Your task to perform on an android device: toggle data saver in the chrome app Image 0: 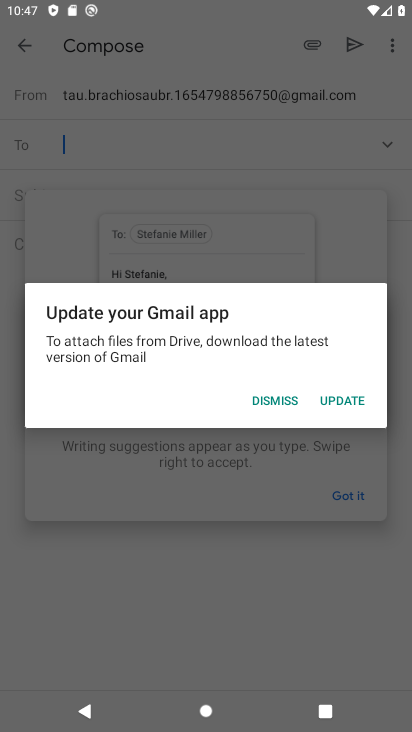
Step 0: press home button
Your task to perform on an android device: toggle data saver in the chrome app Image 1: 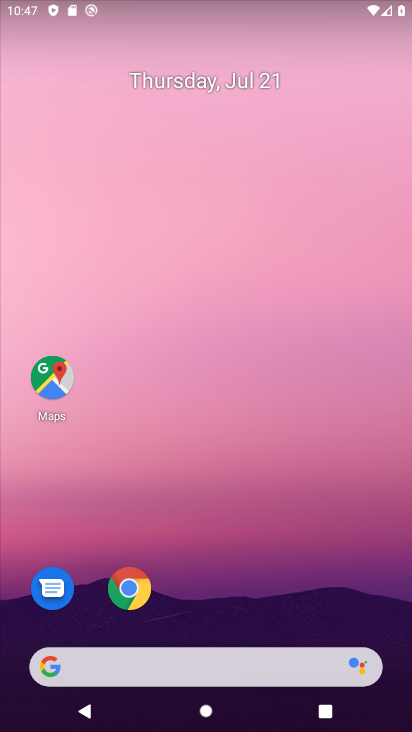
Step 1: drag from (352, 392) to (328, 9)
Your task to perform on an android device: toggle data saver in the chrome app Image 2: 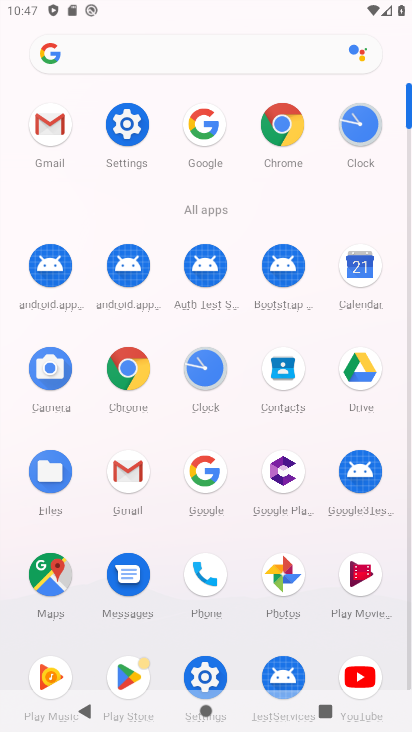
Step 2: click (279, 131)
Your task to perform on an android device: toggle data saver in the chrome app Image 3: 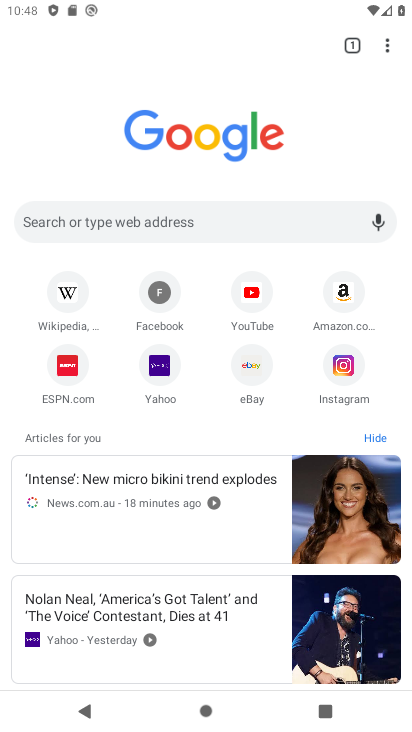
Step 3: drag from (395, 52) to (263, 373)
Your task to perform on an android device: toggle data saver in the chrome app Image 4: 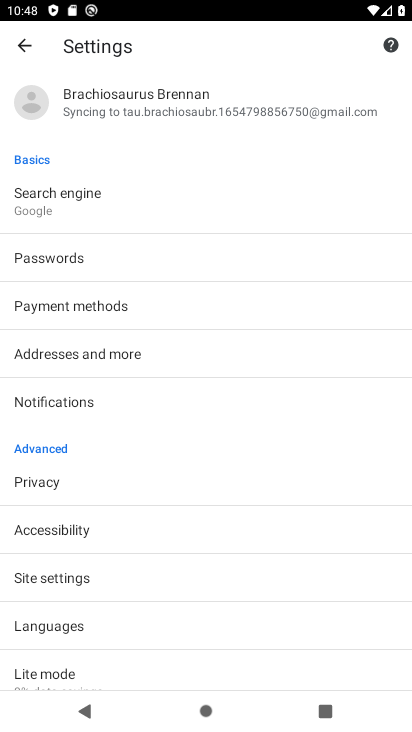
Step 4: drag from (102, 630) to (212, 234)
Your task to perform on an android device: toggle data saver in the chrome app Image 5: 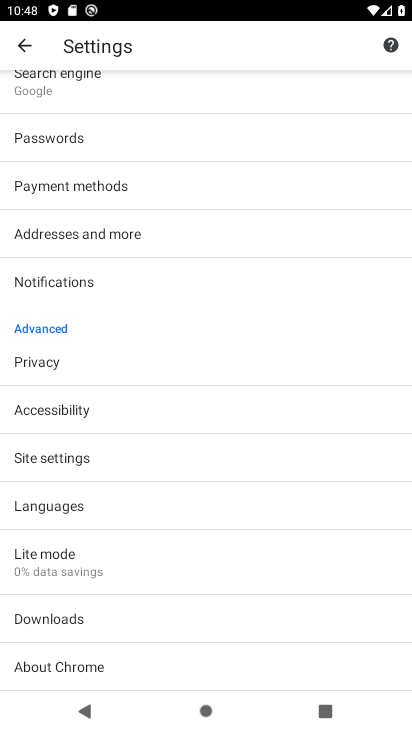
Step 5: click (149, 571)
Your task to perform on an android device: toggle data saver in the chrome app Image 6: 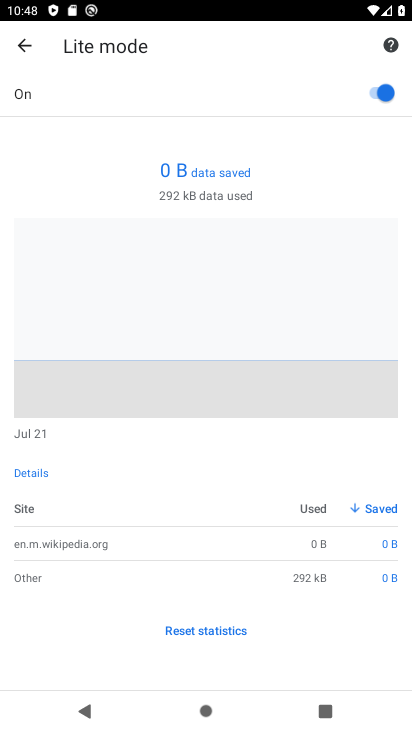
Step 6: click (382, 92)
Your task to perform on an android device: toggle data saver in the chrome app Image 7: 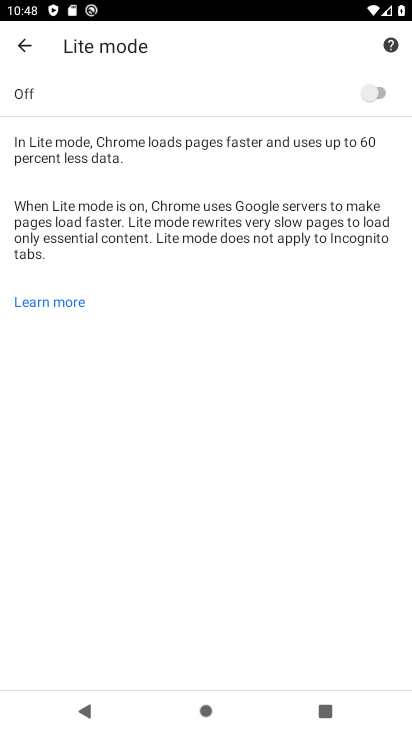
Step 7: task complete